Your task to perform on an android device: Go to ESPN.com Image 0: 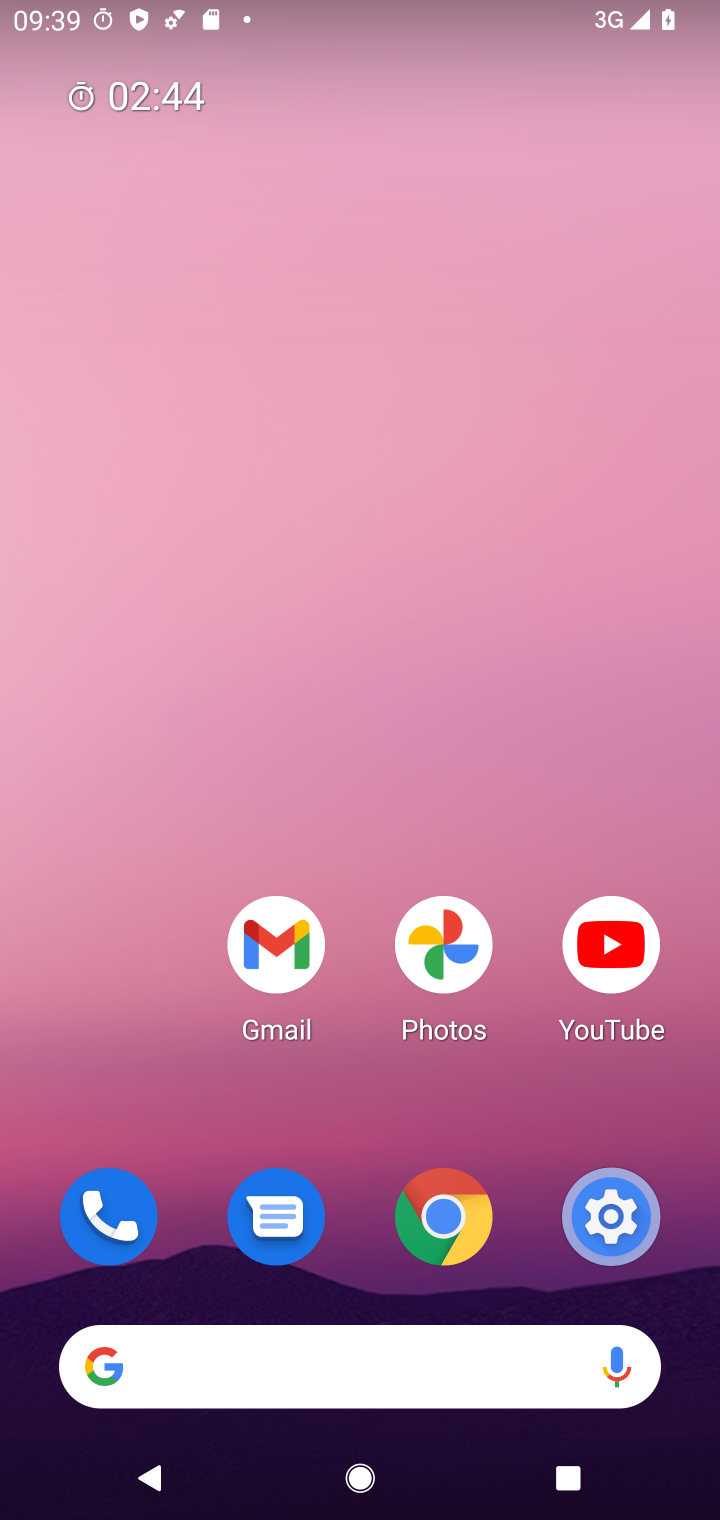
Step 0: click (450, 1218)
Your task to perform on an android device: Go to ESPN.com Image 1: 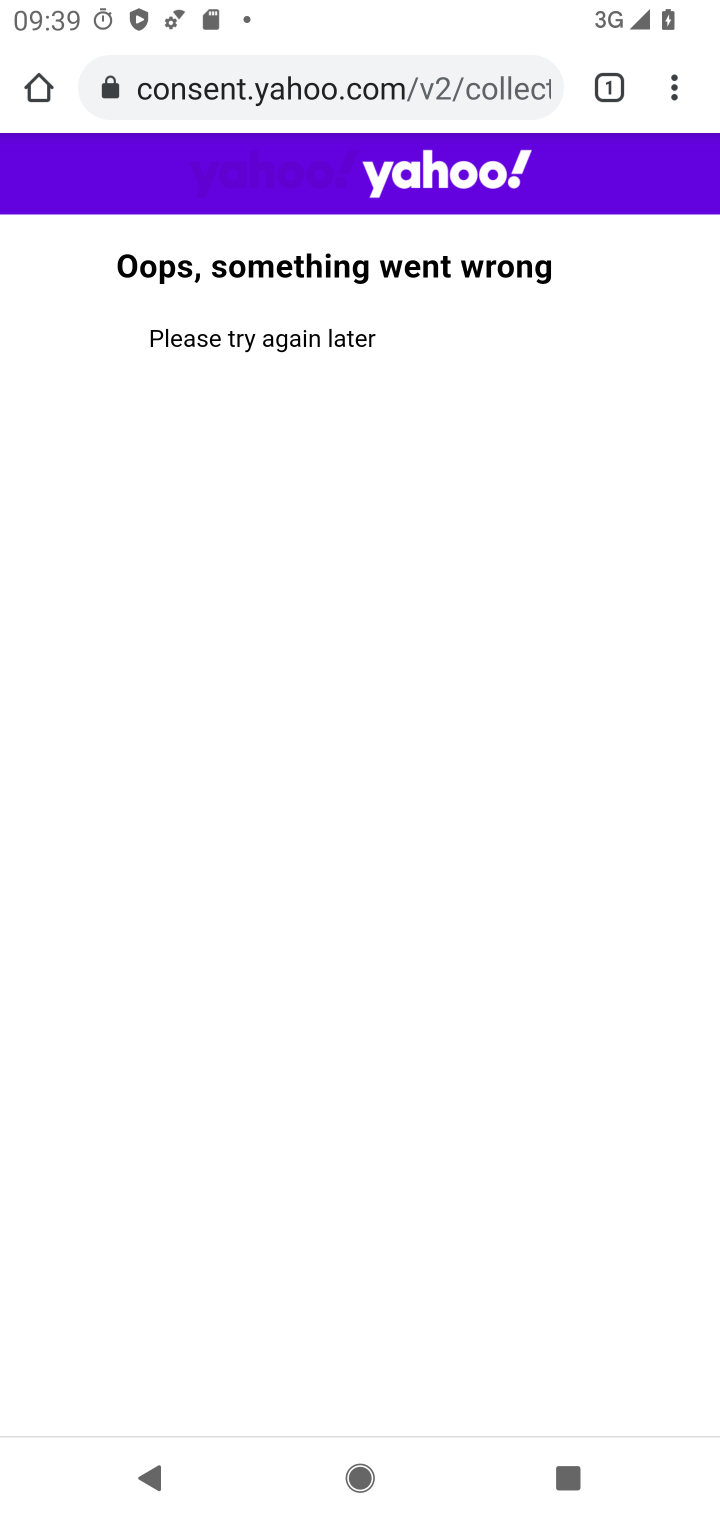
Step 1: click (674, 90)
Your task to perform on an android device: Go to ESPN.com Image 2: 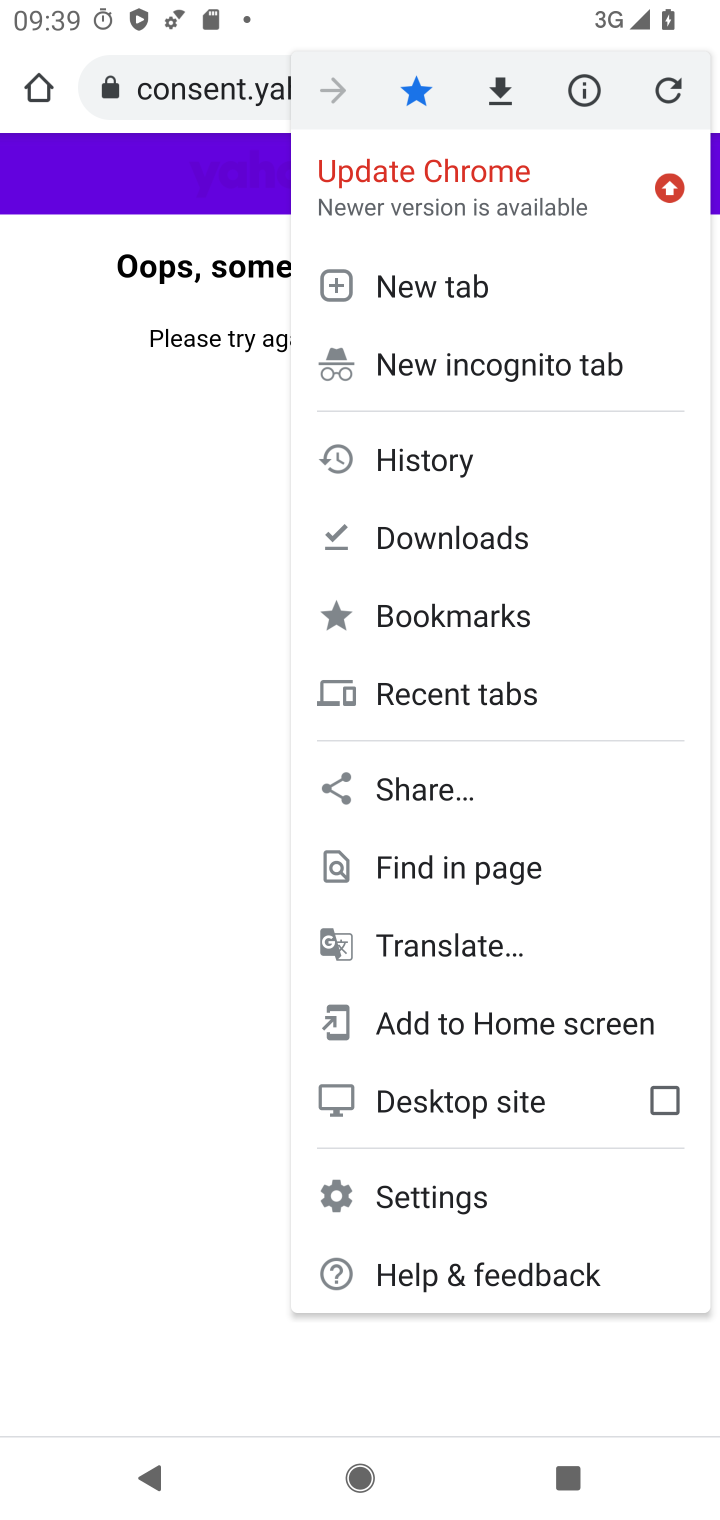
Step 2: click (422, 287)
Your task to perform on an android device: Go to ESPN.com Image 3: 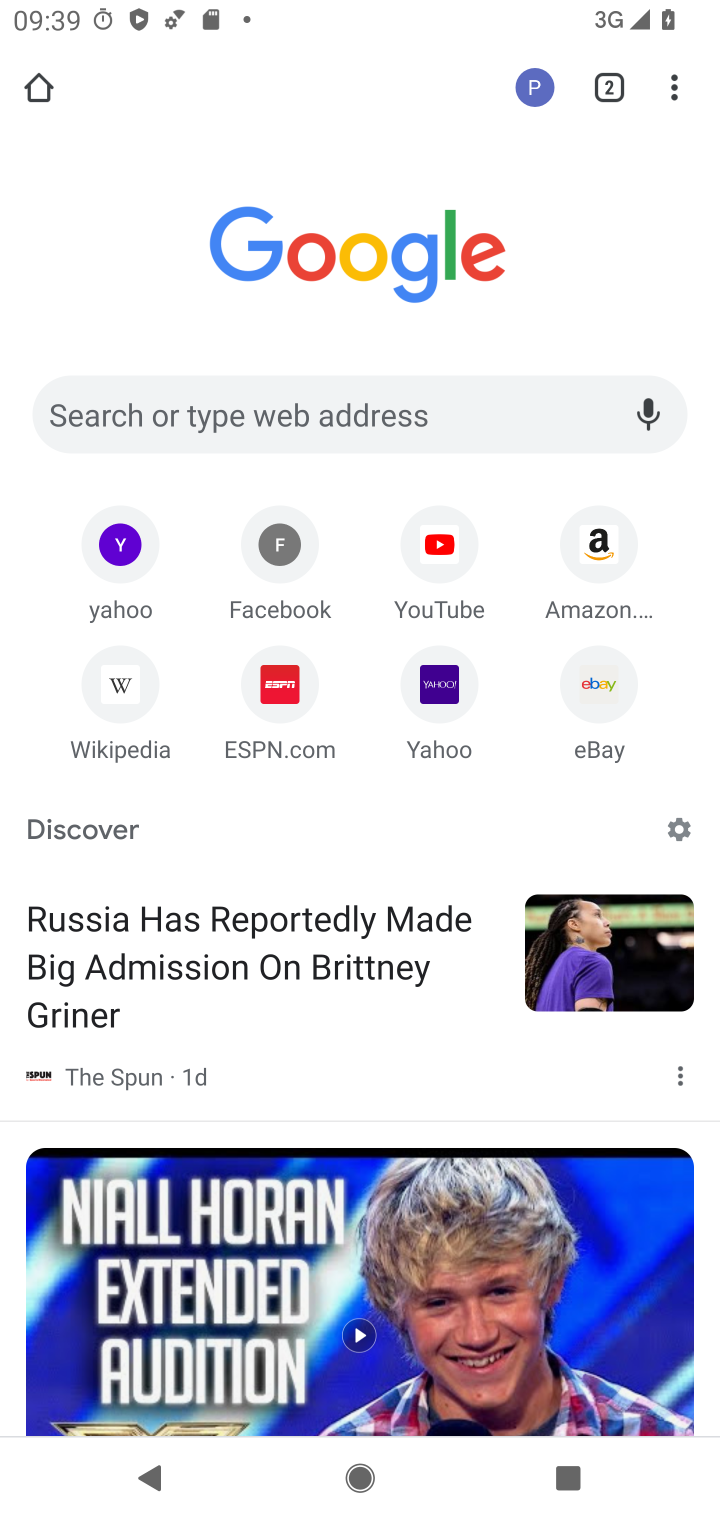
Step 3: click (278, 691)
Your task to perform on an android device: Go to ESPN.com Image 4: 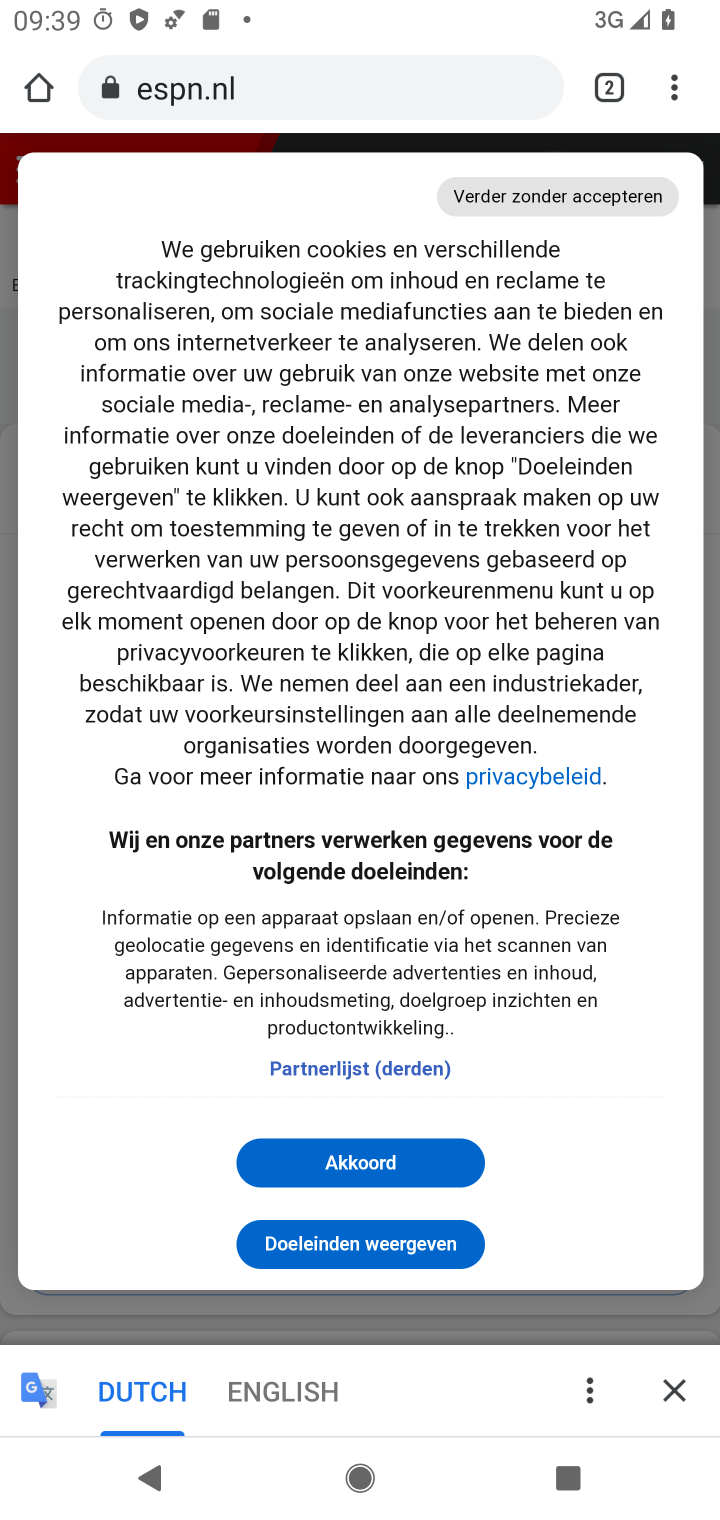
Step 4: task complete